Your task to perform on an android device: Open Chrome and go to the settings page Image 0: 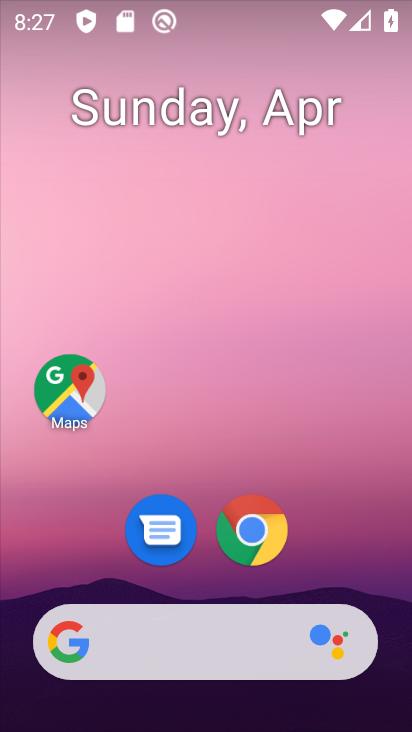
Step 0: click (257, 550)
Your task to perform on an android device: Open Chrome and go to the settings page Image 1: 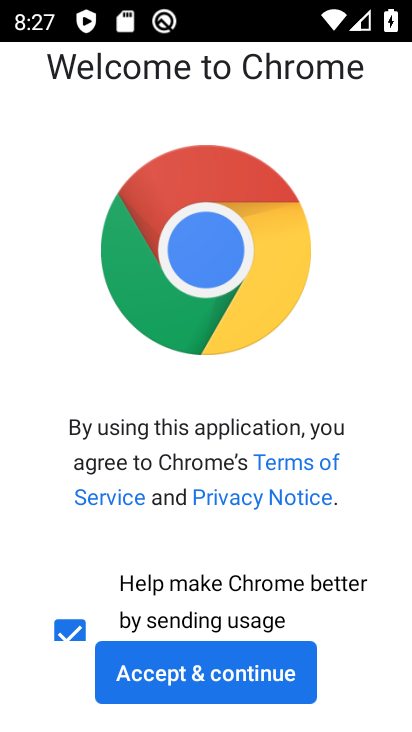
Step 1: click (266, 658)
Your task to perform on an android device: Open Chrome and go to the settings page Image 2: 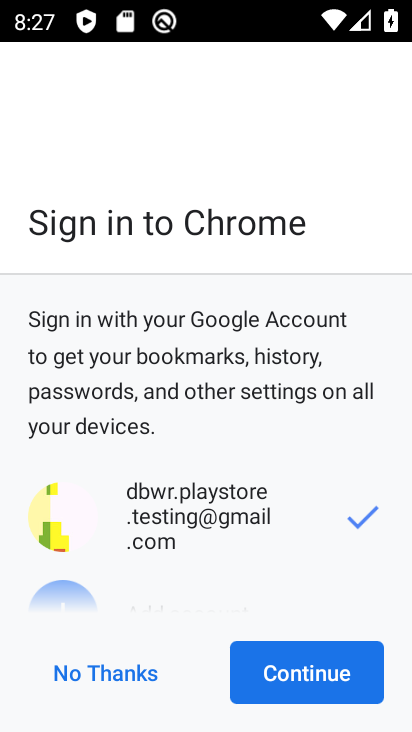
Step 2: click (266, 658)
Your task to perform on an android device: Open Chrome and go to the settings page Image 3: 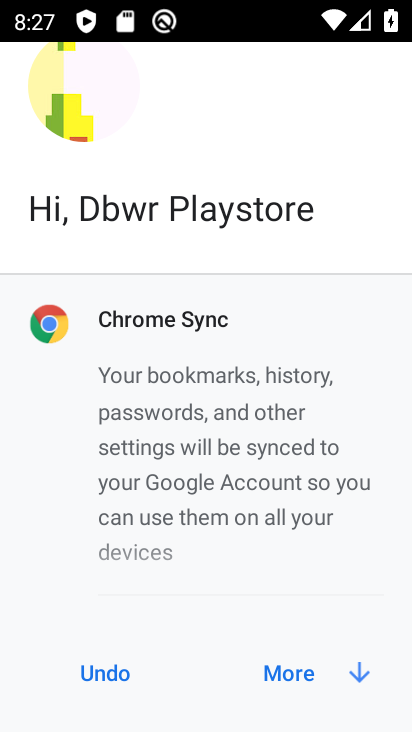
Step 3: click (287, 675)
Your task to perform on an android device: Open Chrome and go to the settings page Image 4: 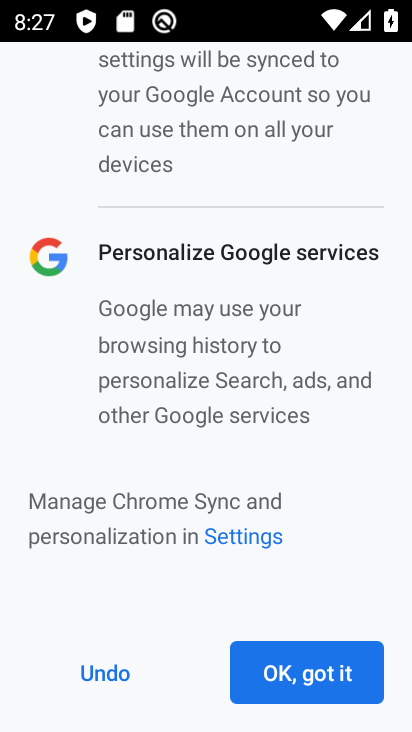
Step 4: click (287, 675)
Your task to perform on an android device: Open Chrome and go to the settings page Image 5: 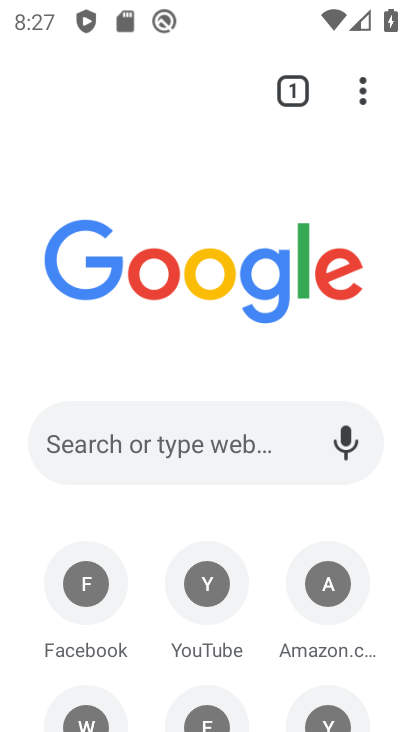
Step 5: click (359, 95)
Your task to perform on an android device: Open Chrome and go to the settings page Image 6: 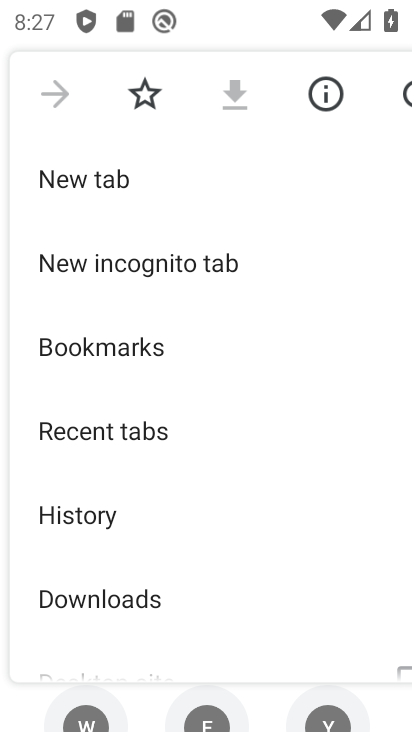
Step 6: drag from (255, 322) to (298, 90)
Your task to perform on an android device: Open Chrome and go to the settings page Image 7: 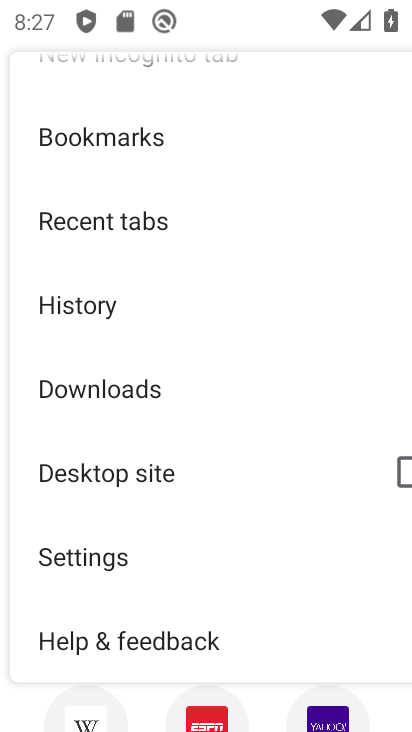
Step 7: click (95, 557)
Your task to perform on an android device: Open Chrome and go to the settings page Image 8: 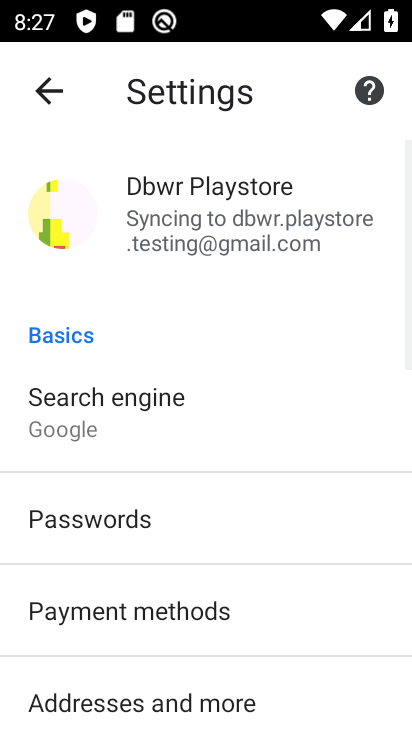
Step 8: task complete